Your task to perform on an android device: Open Chrome and go to settings Image 0: 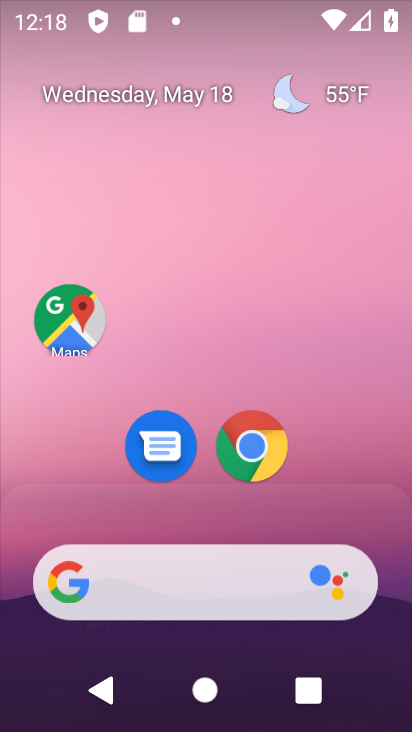
Step 0: click (256, 440)
Your task to perform on an android device: Open Chrome and go to settings Image 1: 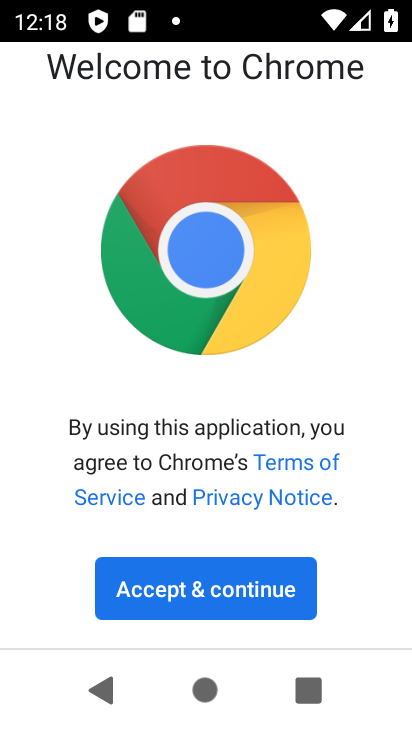
Step 1: click (246, 584)
Your task to perform on an android device: Open Chrome and go to settings Image 2: 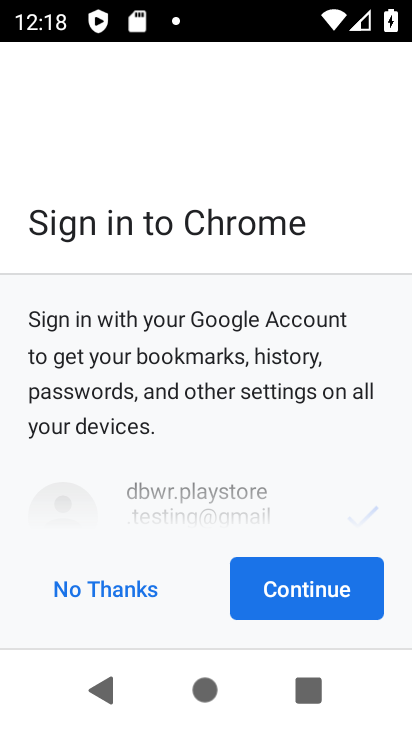
Step 2: click (302, 579)
Your task to perform on an android device: Open Chrome and go to settings Image 3: 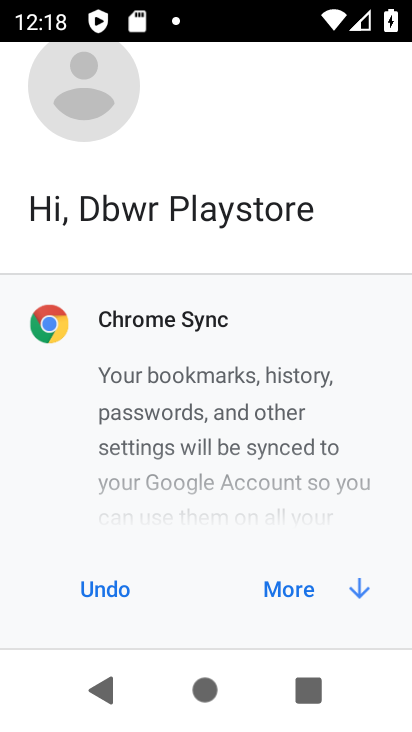
Step 3: click (300, 583)
Your task to perform on an android device: Open Chrome and go to settings Image 4: 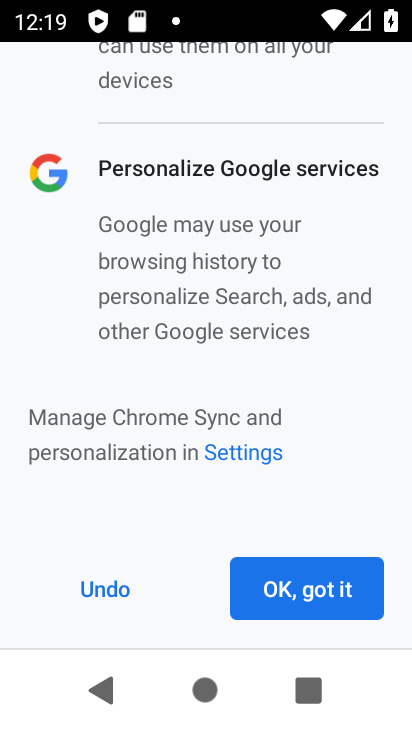
Step 4: click (300, 583)
Your task to perform on an android device: Open Chrome and go to settings Image 5: 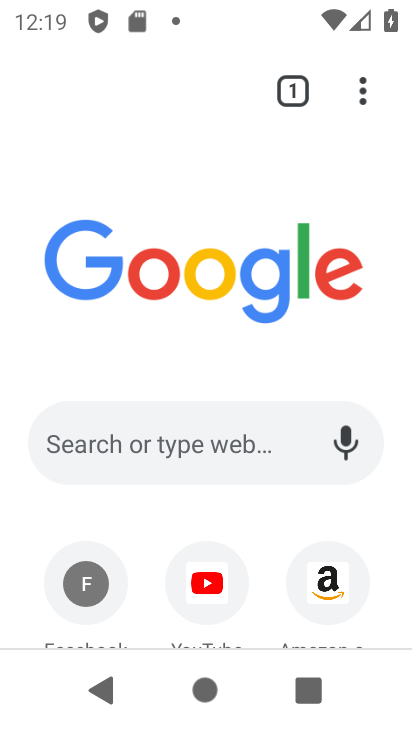
Step 5: click (358, 94)
Your task to perform on an android device: Open Chrome and go to settings Image 6: 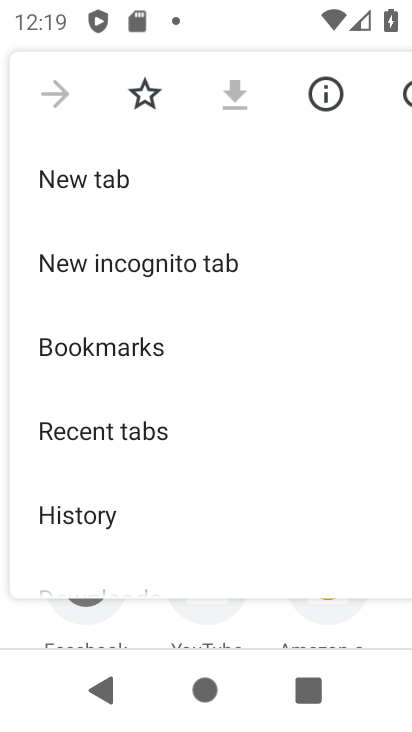
Step 6: drag from (180, 548) to (205, 199)
Your task to perform on an android device: Open Chrome and go to settings Image 7: 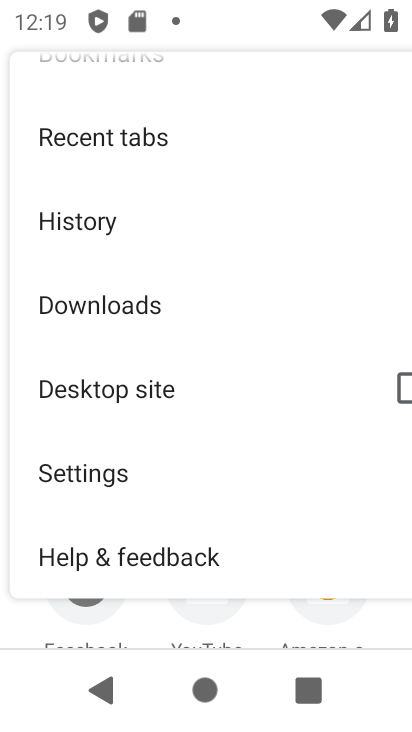
Step 7: click (108, 481)
Your task to perform on an android device: Open Chrome and go to settings Image 8: 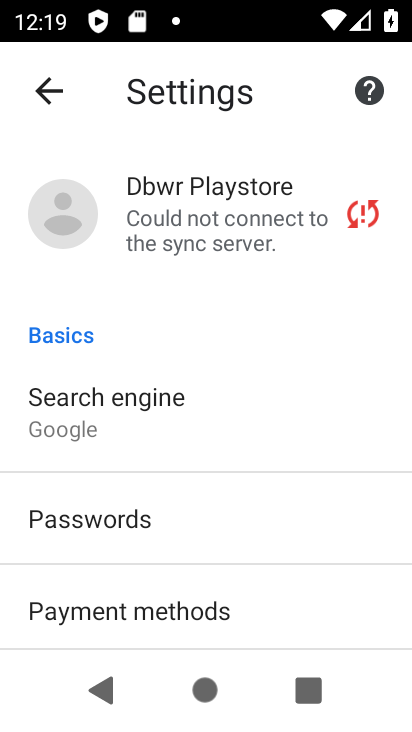
Step 8: task complete